Your task to perform on an android device: change your default location settings in chrome Image 0: 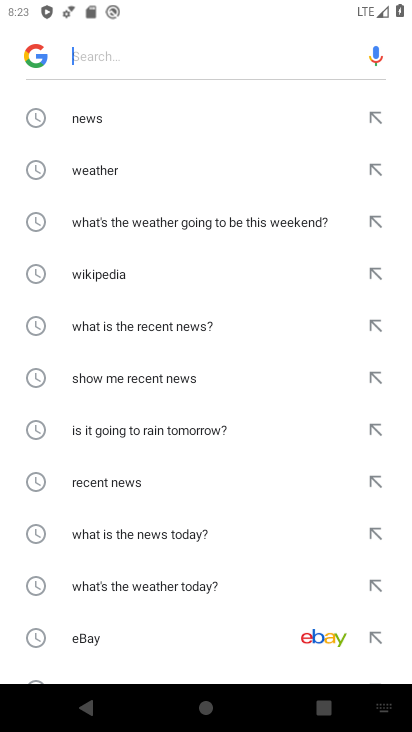
Step 0: press back button
Your task to perform on an android device: change your default location settings in chrome Image 1: 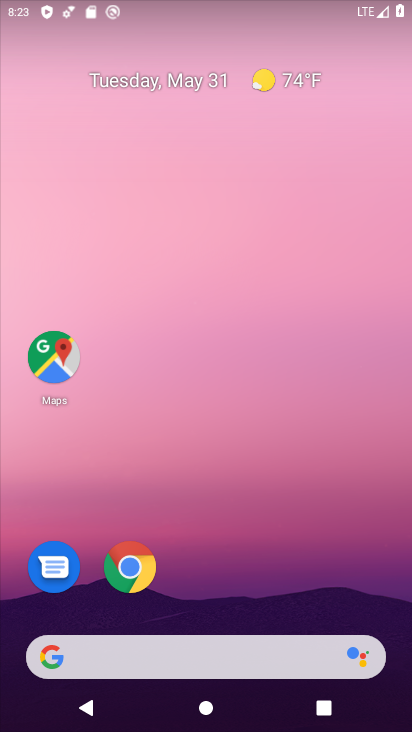
Step 1: drag from (274, 664) to (218, 124)
Your task to perform on an android device: change your default location settings in chrome Image 2: 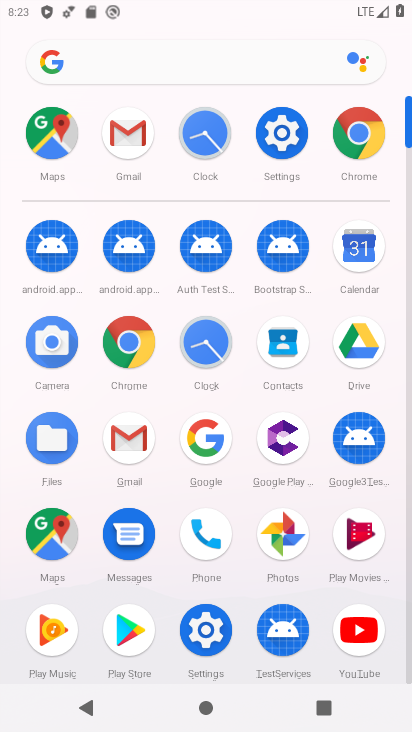
Step 2: click (364, 140)
Your task to perform on an android device: change your default location settings in chrome Image 3: 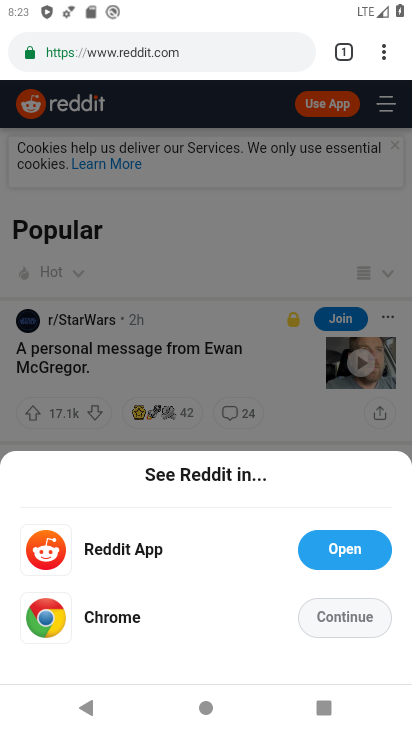
Step 3: press back button
Your task to perform on an android device: change your default location settings in chrome Image 4: 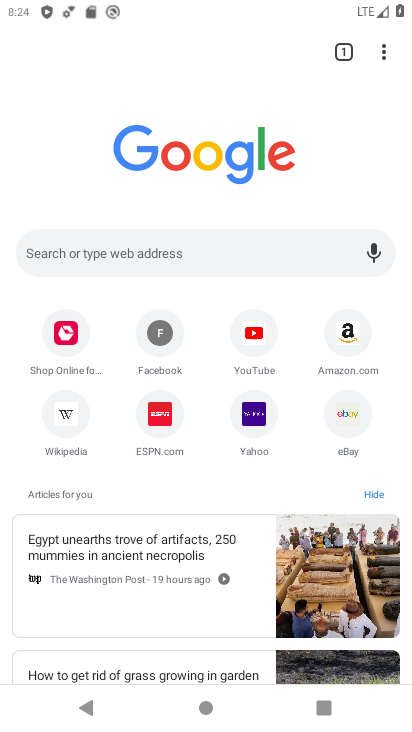
Step 4: drag from (380, 50) to (190, 433)
Your task to perform on an android device: change your default location settings in chrome Image 5: 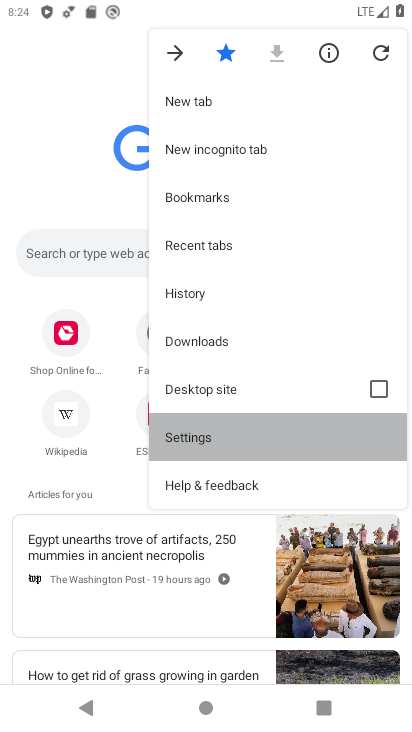
Step 5: click (191, 433)
Your task to perform on an android device: change your default location settings in chrome Image 6: 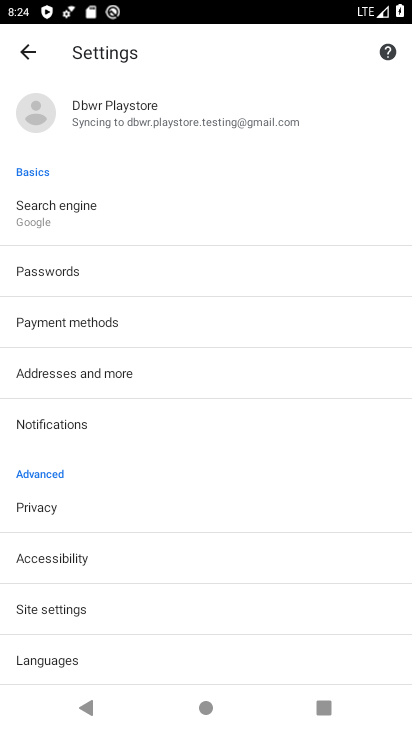
Step 6: click (50, 602)
Your task to perform on an android device: change your default location settings in chrome Image 7: 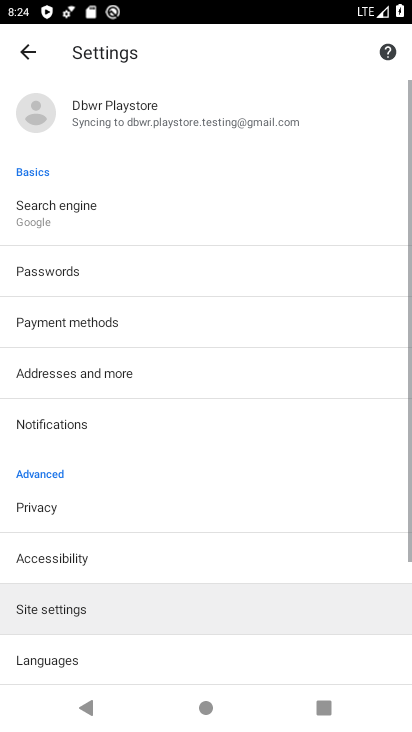
Step 7: click (65, 603)
Your task to perform on an android device: change your default location settings in chrome Image 8: 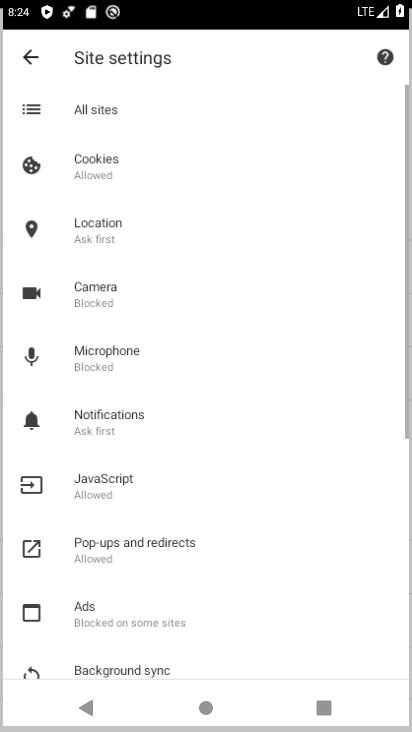
Step 8: click (65, 608)
Your task to perform on an android device: change your default location settings in chrome Image 9: 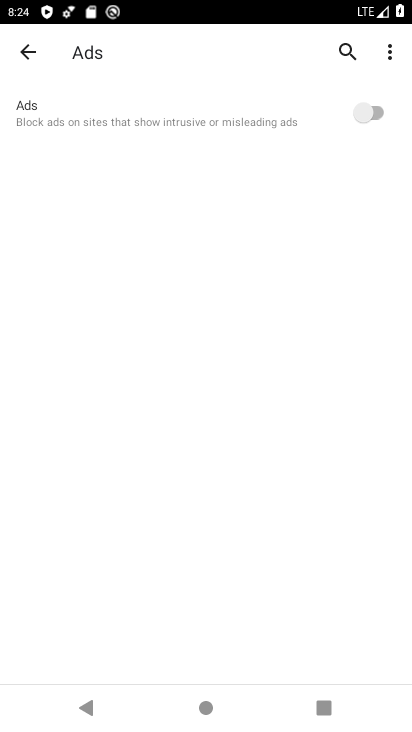
Step 9: click (30, 53)
Your task to perform on an android device: change your default location settings in chrome Image 10: 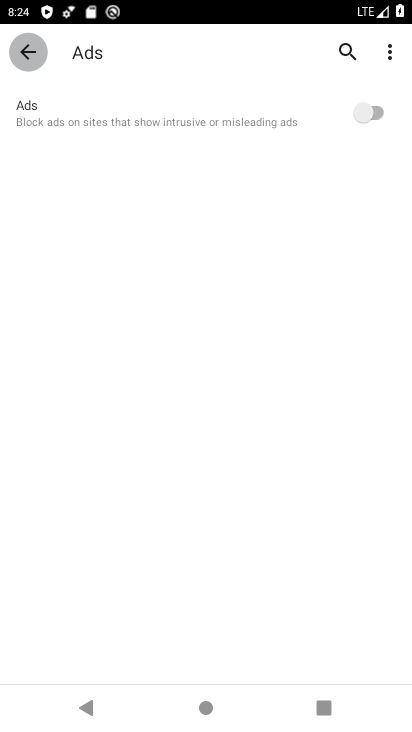
Step 10: click (32, 52)
Your task to perform on an android device: change your default location settings in chrome Image 11: 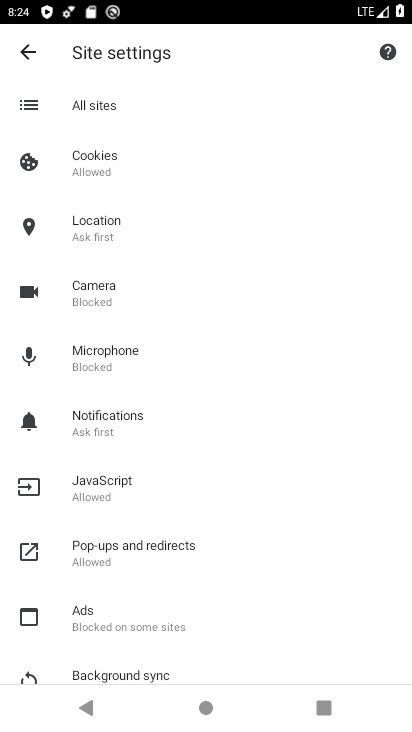
Step 11: click (94, 226)
Your task to perform on an android device: change your default location settings in chrome Image 12: 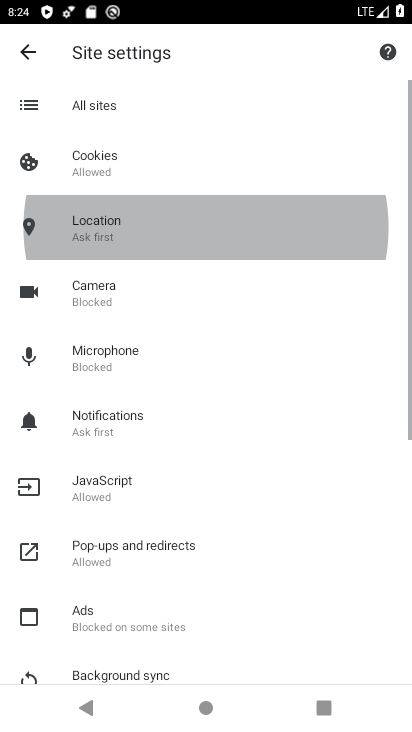
Step 12: click (91, 226)
Your task to perform on an android device: change your default location settings in chrome Image 13: 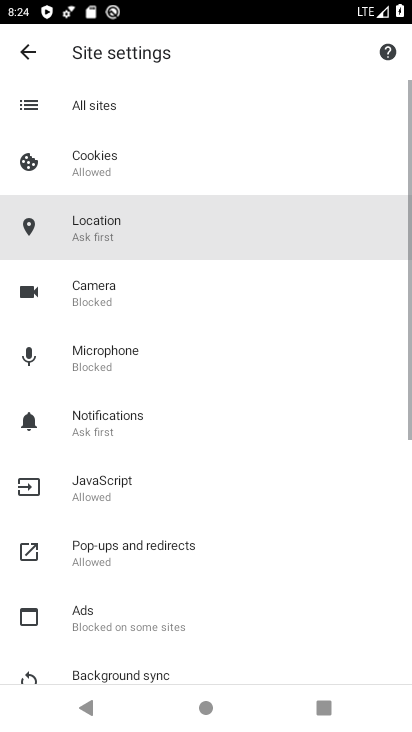
Step 13: click (91, 225)
Your task to perform on an android device: change your default location settings in chrome Image 14: 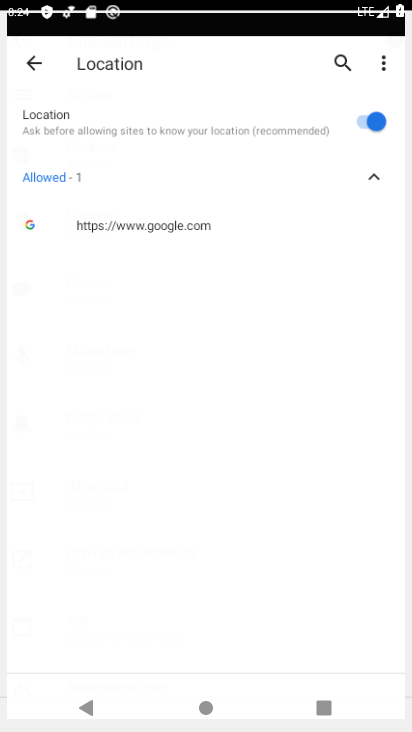
Step 14: click (89, 220)
Your task to perform on an android device: change your default location settings in chrome Image 15: 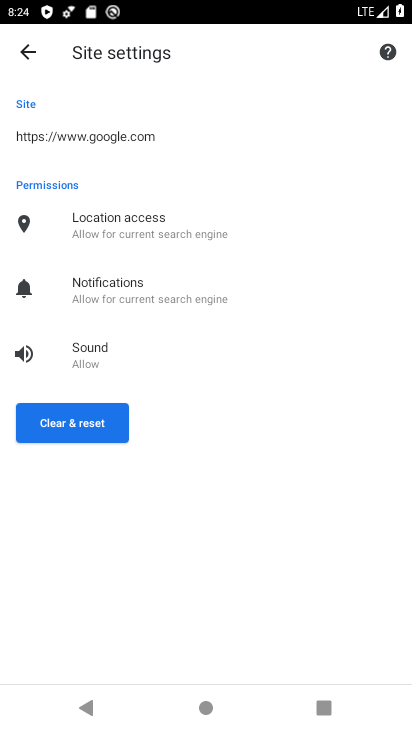
Step 15: task complete